Your task to perform on an android device: star an email in the gmail app Image 0: 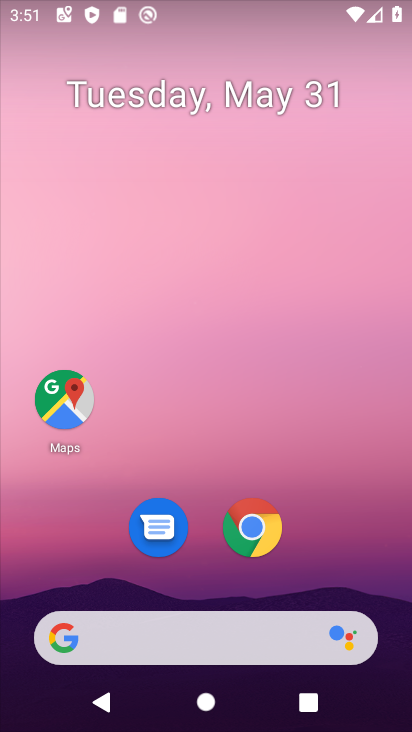
Step 0: drag from (222, 599) to (203, 30)
Your task to perform on an android device: star an email in the gmail app Image 1: 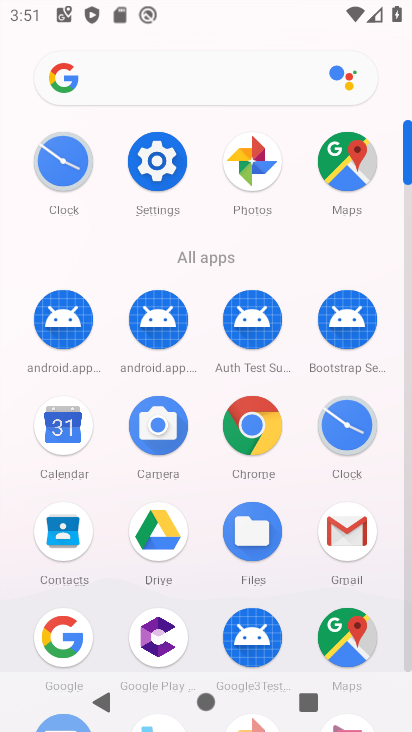
Step 1: click (330, 543)
Your task to perform on an android device: star an email in the gmail app Image 2: 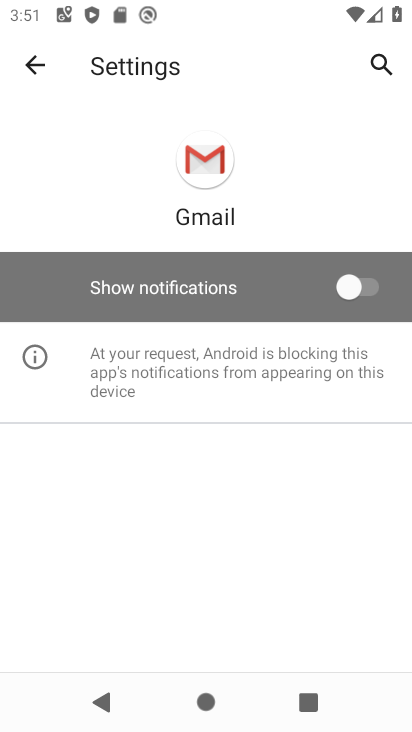
Step 2: click (48, 58)
Your task to perform on an android device: star an email in the gmail app Image 3: 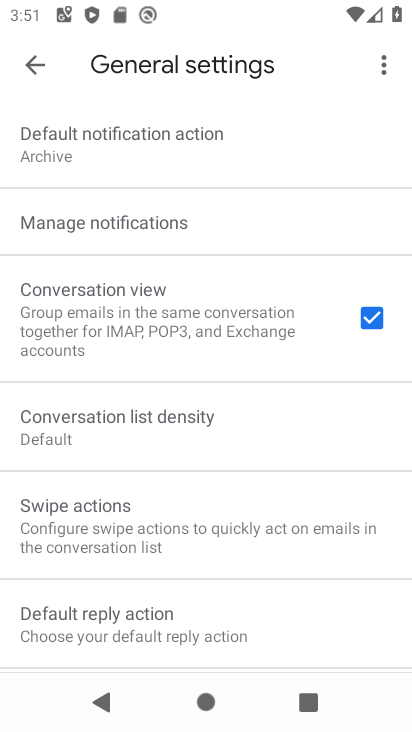
Step 3: click (20, 57)
Your task to perform on an android device: star an email in the gmail app Image 4: 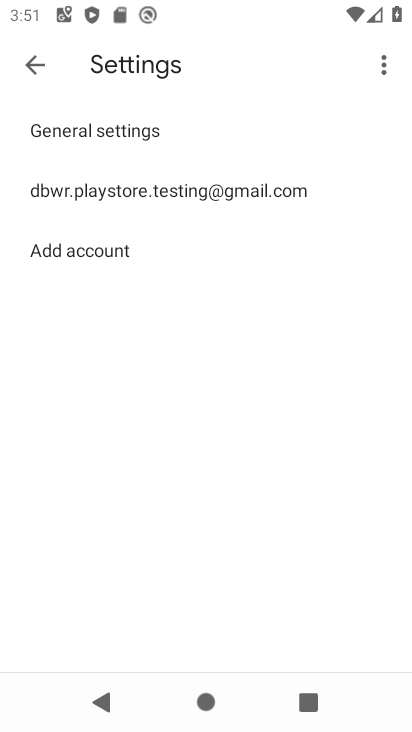
Step 4: click (45, 56)
Your task to perform on an android device: star an email in the gmail app Image 5: 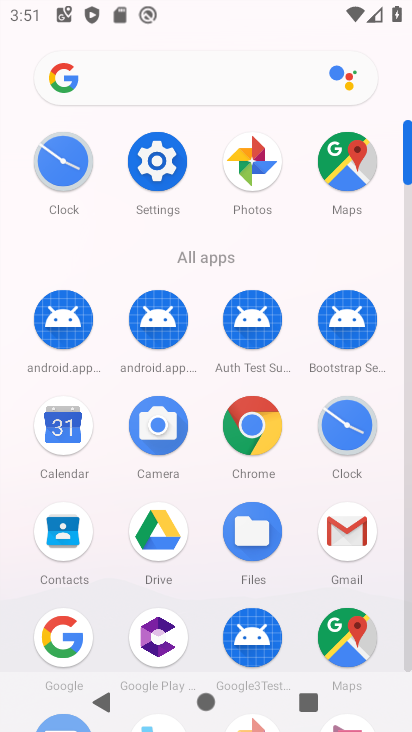
Step 5: click (345, 529)
Your task to perform on an android device: star an email in the gmail app Image 6: 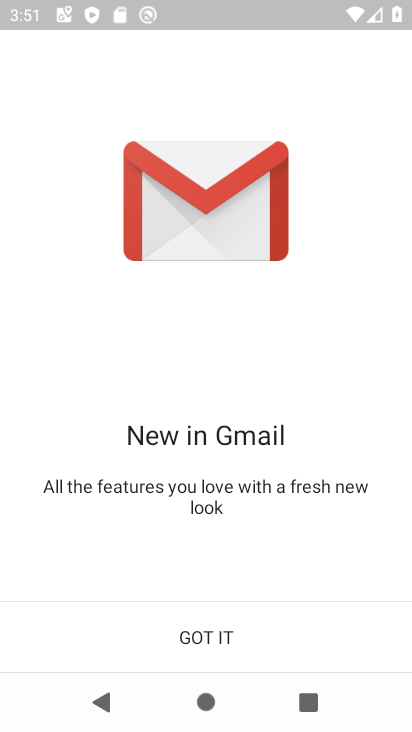
Step 6: click (218, 636)
Your task to perform on an android device: star an email in the gmail app Image 7: 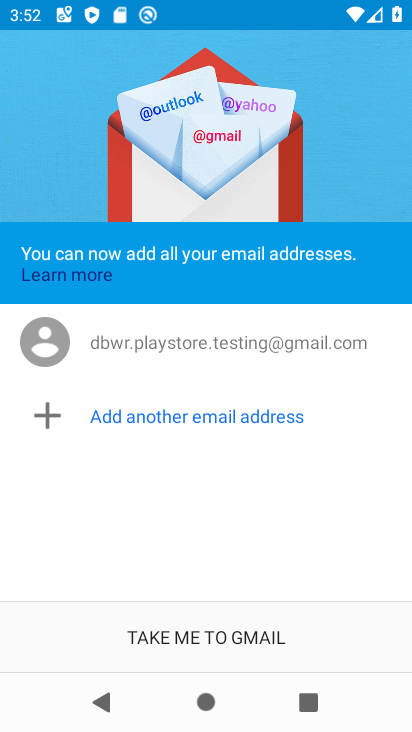
Step 7: click (282, 631)
Your task to perform on an android device: star an email in the gmail app Image 8: 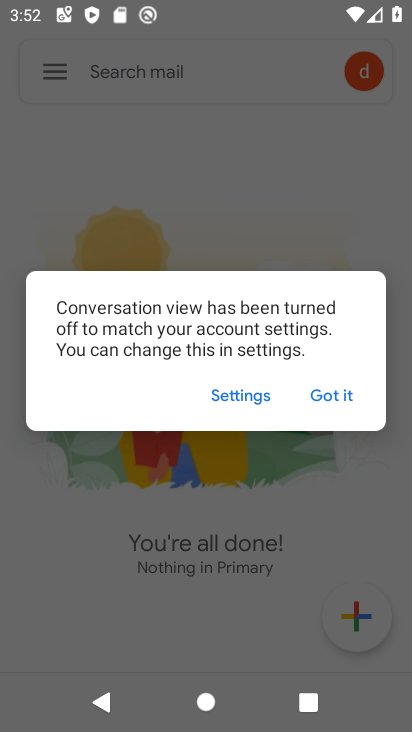
Step 8: click (332, 390)
Your task to perform on an android device: star an email in the gmail app Image 9: 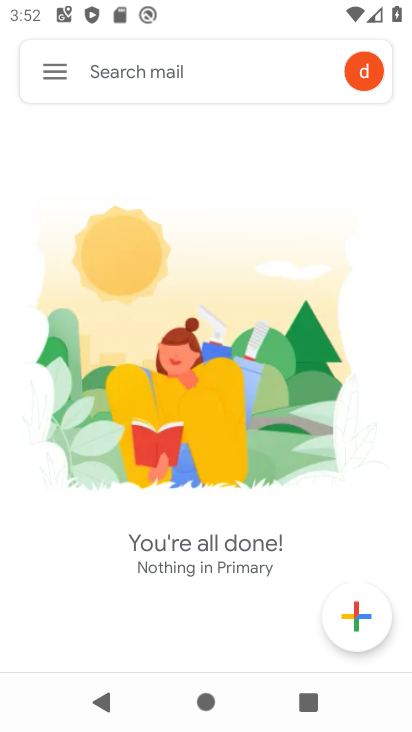
Step 9: task complete